Your task to perform on an android device: Go to notification settings Image 0: 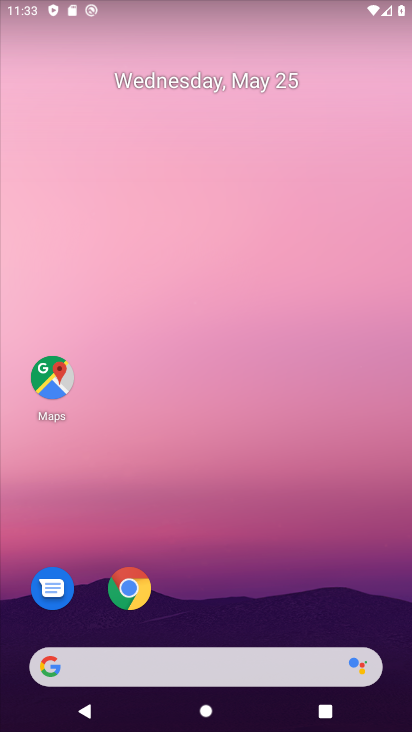
Step 0: drag from (197, 458) to (258, 213)
Your task to perform on an android device: Go to notification settings Image 1: 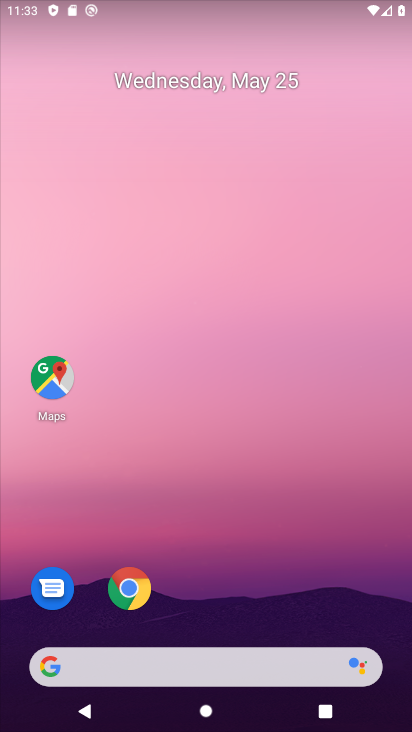
Step 1: drag from (213, 535) to (280, 184)
Your task to perform on an android device: Go to notification settings Image 2: 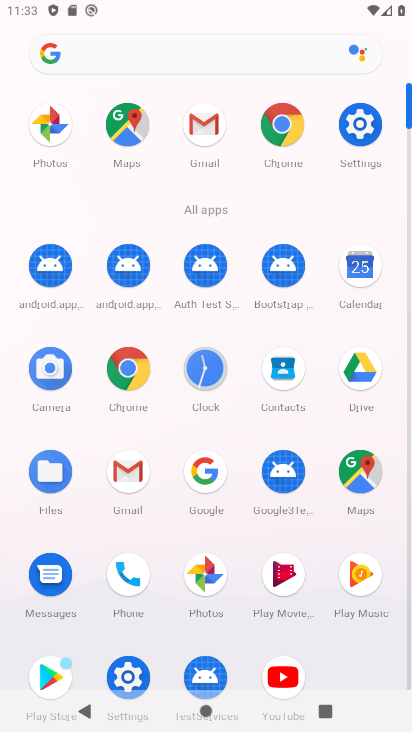
Step 2: click (359, 126)
Your task to perform on an android device: Go to notification settings Image 3: 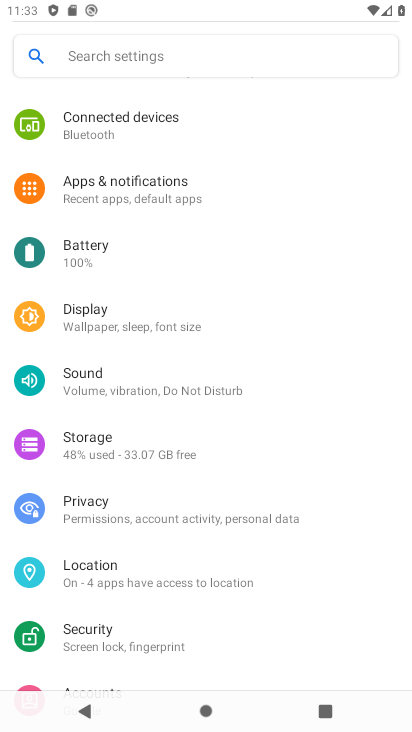
Step 3: click (190, 191)
Your task to perform on an android device: Go to notification settings Image 4: 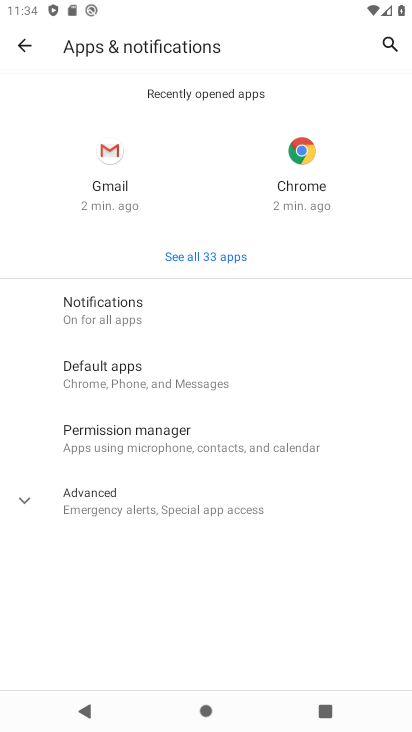
Step 4: task complete